Your task to perform on an android device: Add "apple airpods pro" to the cart on newegg Image 0: 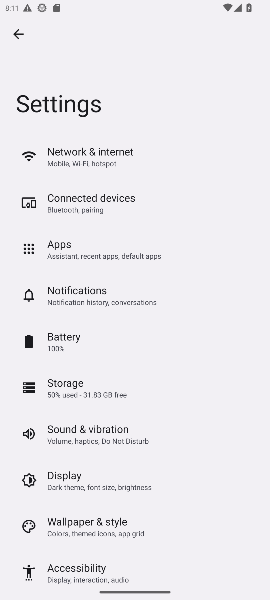
Step 0: press home button
Your task to perform on an android device: Add "apple airpods pro" to the cart on newegg Image 1: 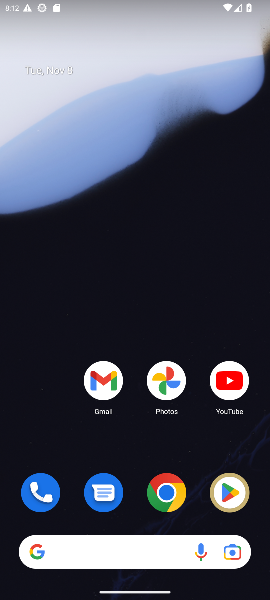
Step 1: click (171, 491)
Your task to perform on an android device: Add "apple airpods pro" to the cart on newegg Image 2: 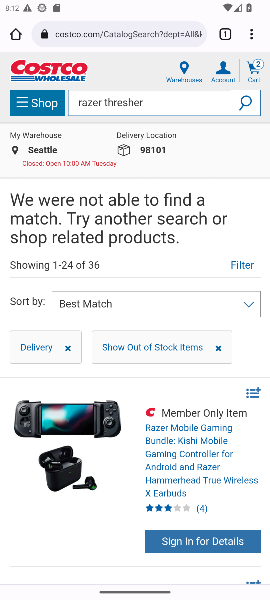
Step 2: click (93, 41)
Your task to perform on an android device: Add "apple airpods pro" to the cart on newegg Image 3: 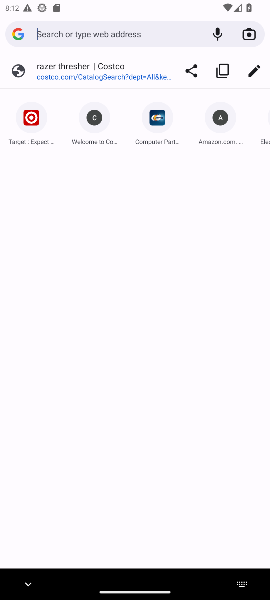
Step 3: type "newegg"
Your task to perform on an android device: Add "apple airpods pro" to the cart on newegg Image 4: 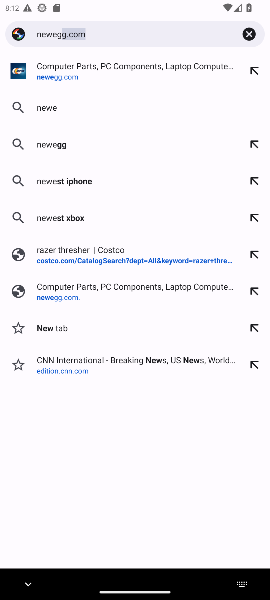
Step 4: press enter
Your task to perform on an android device: Add "apple airpods pro" to the cart on newegg Image 5: 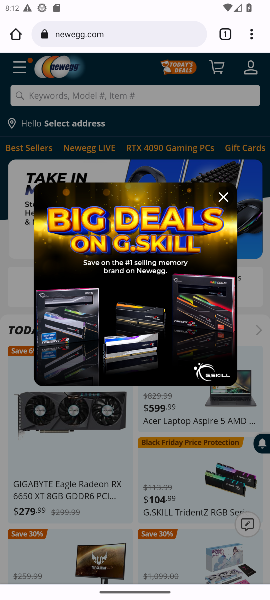
Step 5: click (18, 572)
Your task to perform on an android device: Add "apple airpods pro" to the cart on newegg Image 6: 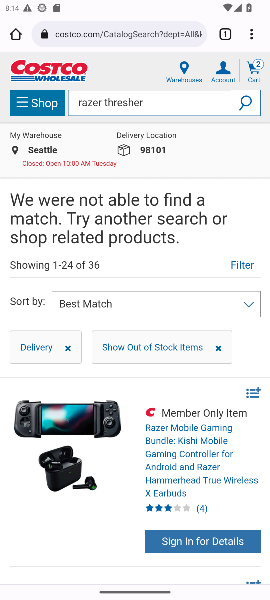
Step 6: click (84, 34)
Your task to perform on an android device: Add "apple airpods pro" to the cart on newegg Image 7: 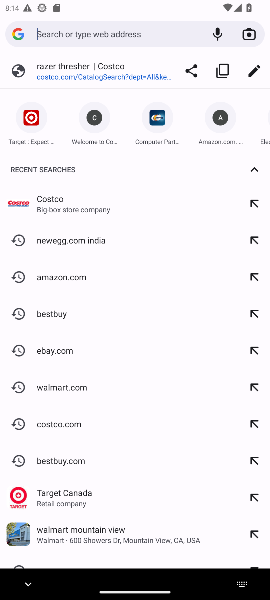
Step 7: type "newegg"
Your task to perform on an android device: Add "apple airpods pro" to the cart on newegg Image 8: 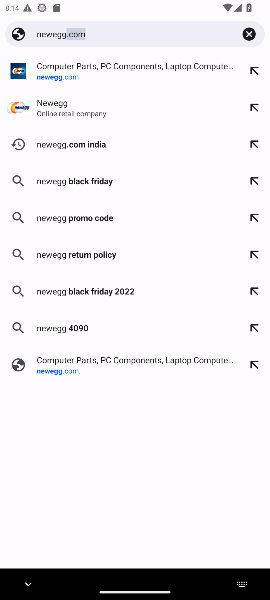
Step 8: press enter
Your task to perform on an android device: Add "apple airpods pro" to the cart on newegg Image 9: 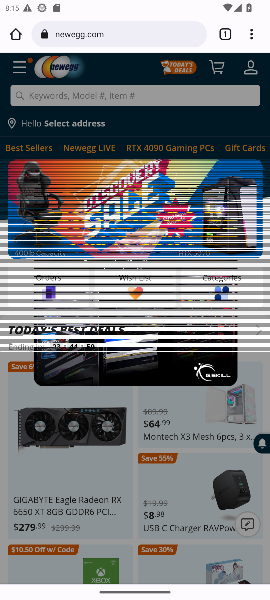
Step 9: click (84, 102)
Your task to perform on an android device: Add "apple airpods pro" to the cart on newegg Image 10: 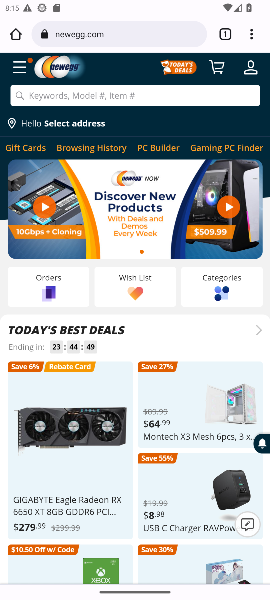
Step 10: type "apple airpods pro"
Your task to perform on an android device: Add "apple airpods pro" to the cart on newegg Image 11: 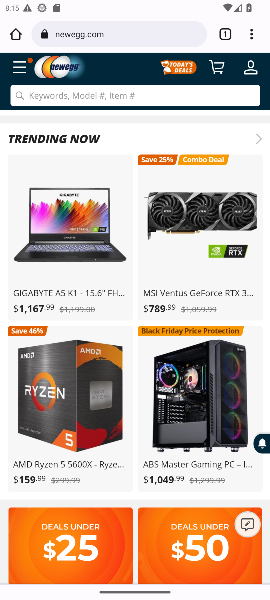
Step 11: click (107, 96)
Your task to perform on an android device: Add "apple airpods pro" to the cart on newegg Image 12: 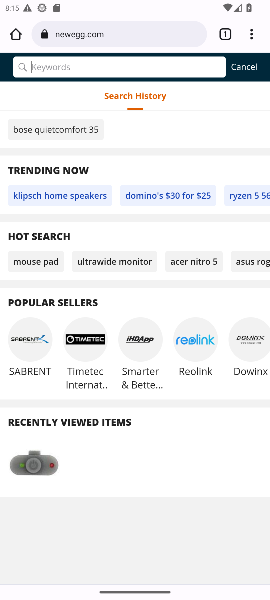
Step 12: click (107, 96)
Your task to perform on an android device: Add "apple airpods pro" to the cart on newegg Image 13: 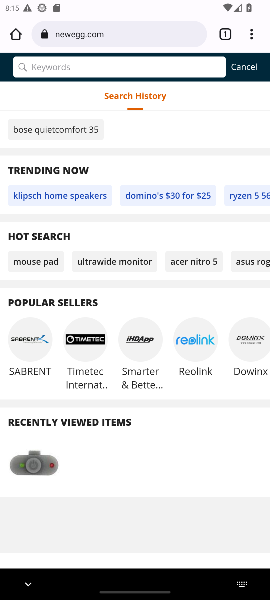
Step 13: click (107, 96)
Your task to perform on an android device: Add "apple airpods pro" to the cart on newegg Image 14: 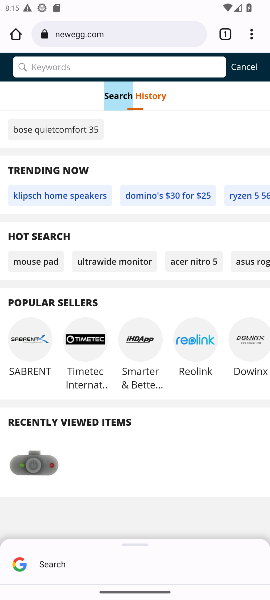
Step 14: type "apple airpods pro"
Your task to perform on an android device: Add "apple airpods pro" to the cart on newegg Image 15: 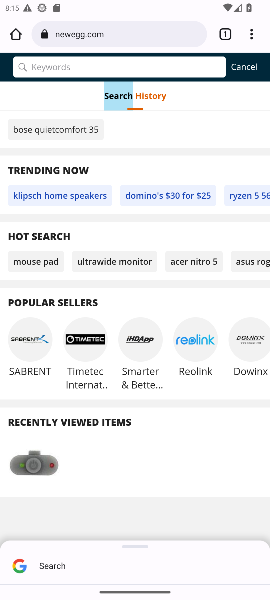
Step 15: click (93, 63)
Your task to perform on an android device: Add "apple airpods pro" to the cart on newegg Image 16: 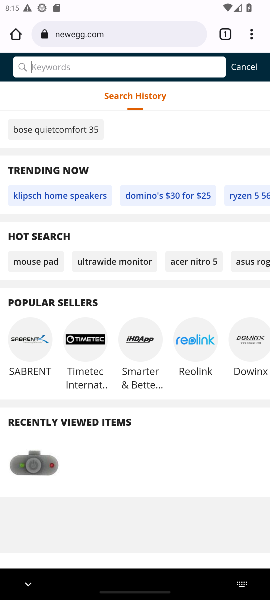
Step 16: click (93, 63)
Your task to perform on an android device: Add "apple airpods pro" to the cart on newegg Image 17: 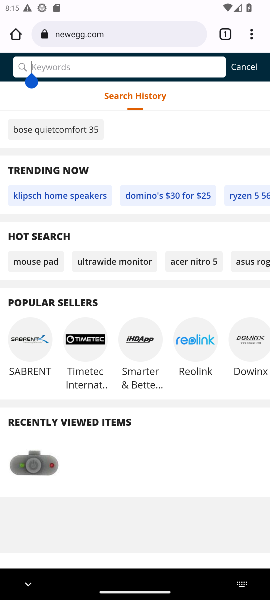
Step 17: type "apple airpods pro"
Your task to perform on an android device: Add "apple airpods pro" to the cart on newegg Image 18: 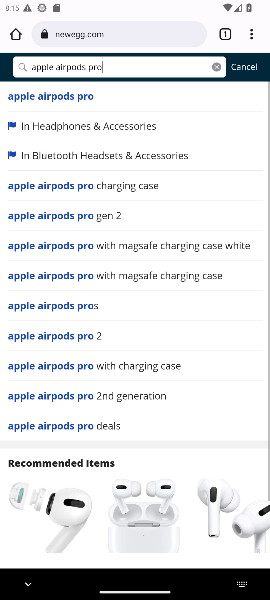
Step 18: press enter
Your task to perform on an android device: Add "apple airpods pro" to the cart on newegg Image 19: 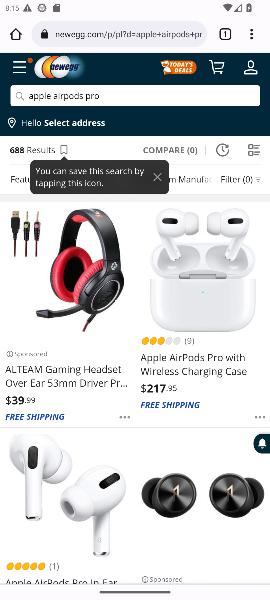
Step 19: click (202, 358)
Your task to perform on an android device: Add "apple airpods pro" to the cart on newegg Image 20: 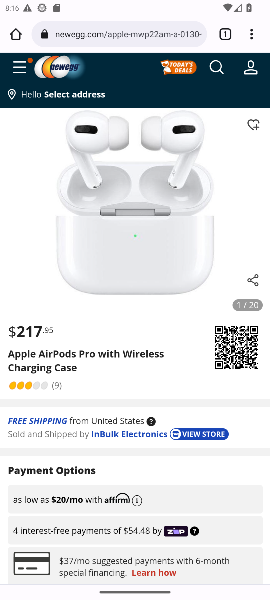
Step 20: drag from (186, 460) to (152, 176)
Your task to perform on an android device: Add "apple airpods pro" to the cart on newegg Image 21: 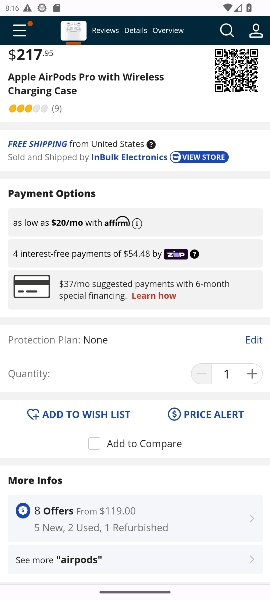
Step 21: drag from (134, 303) to (140, 448)
Your task to perform on an android device: Add "apple airpods pro" to the cart on newegg Image 22: 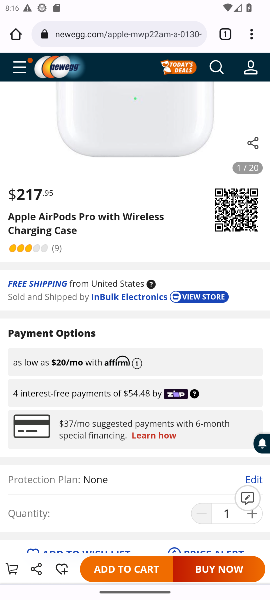
Step 22: click (118, 573)
Your task to perform on an android device: Add "apple airpods pro" to the cart on newegg Image 23: 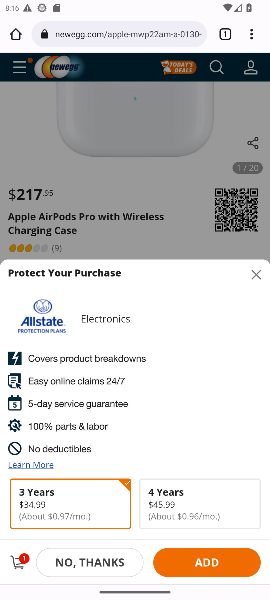
Step 23: click (195, 562)
Your task to perform on an android device: Add "apple airpods pro" to the cart on newegg Image 24: 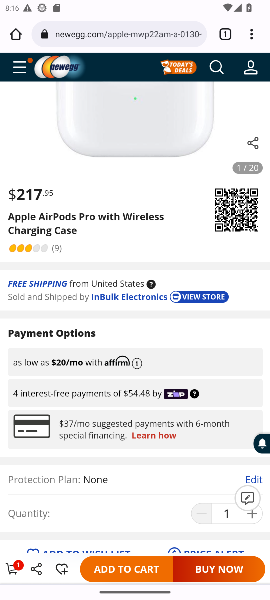
Step 24: task complete